Your task to perform on an android device: Open CNN.com Image 0: 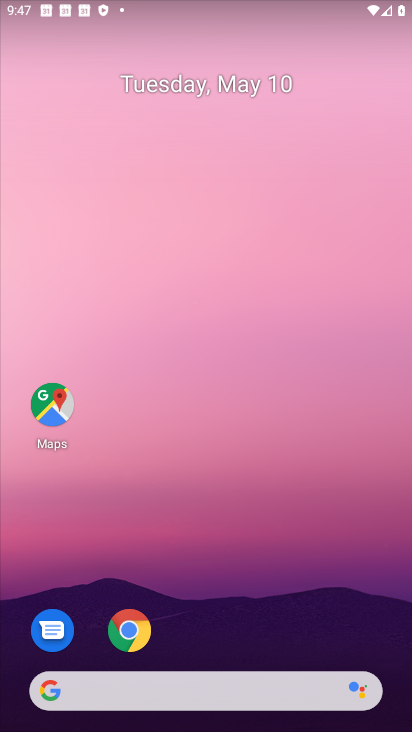
Step 0: click (267, 705)
Your task to perform on an android device: Open CNN.com Image 1: 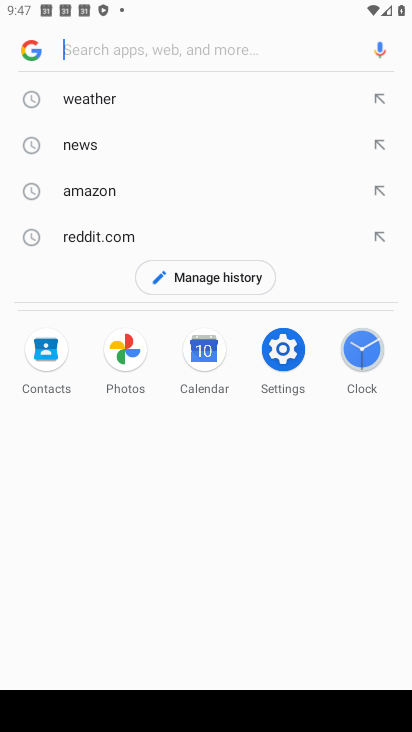
Step 1: type "cnn.com"
Your task to perform on an android device: Open CNN.com Image 2: 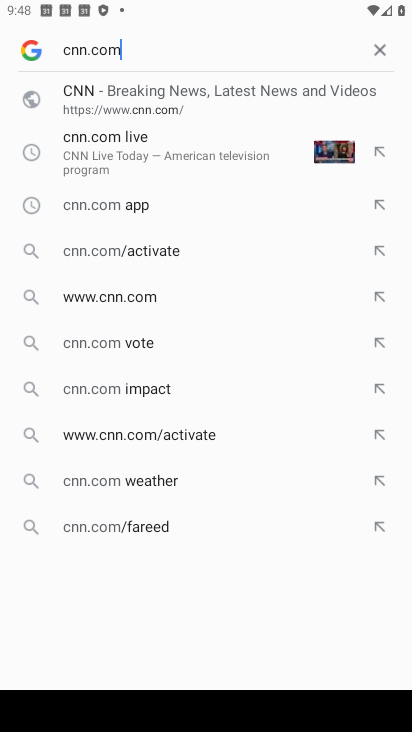
Step 2: click (217, 96)
Your task to perform on an android device: Open CNN.com Image 3: 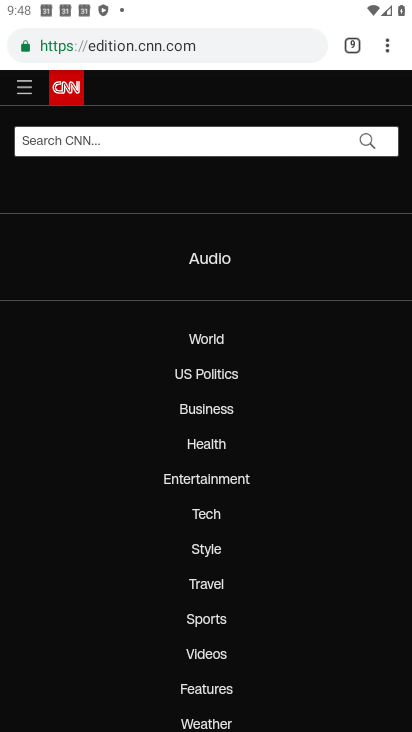
Step 3: task complete